Your task to perform on an android device: move a message to another label in the gmail app Image 0: 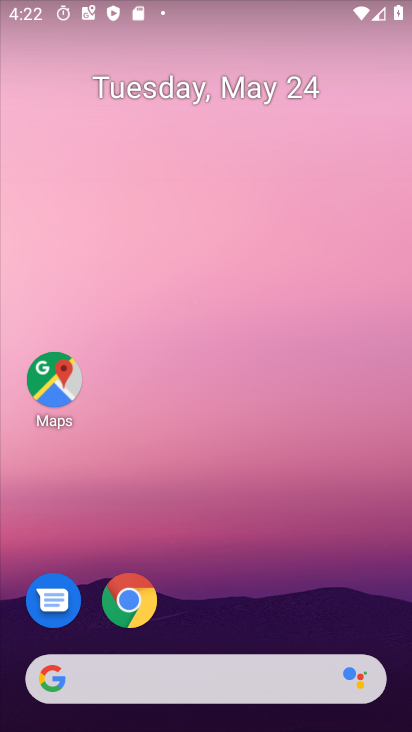
Step 0: drag from (261, 657) to (282, 8)
Your task to perform on an android device: move a message to another label in the gmail app Image 1: 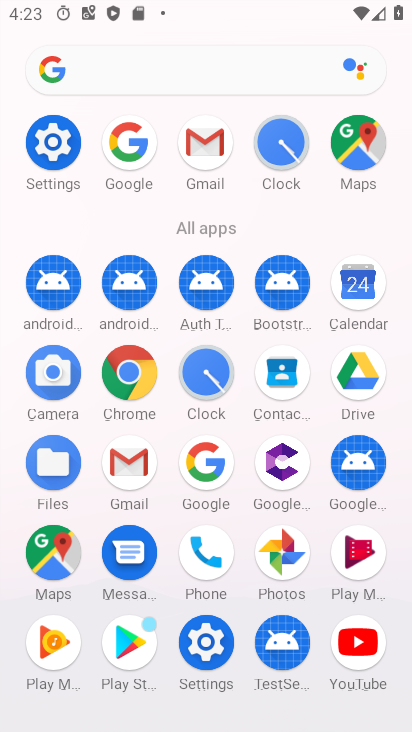
Step 1: click (204, 144)
Your task to perform on an android device: move a message to another label in the gmail app Image 2: 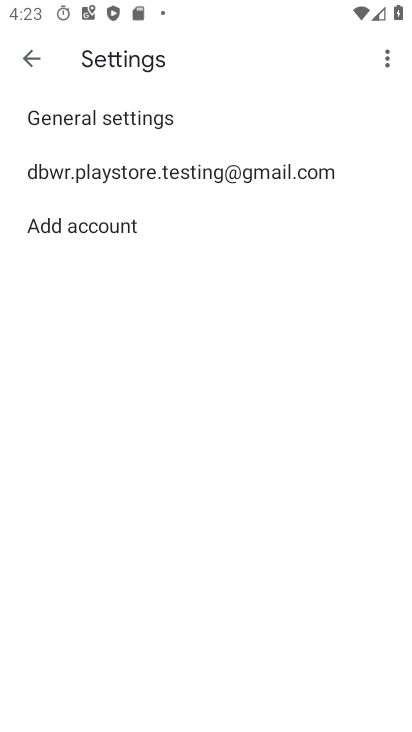
Step 2: click (26, 60)
Your task to perform on an android device: move a message to another label in the gmail app Image 3: 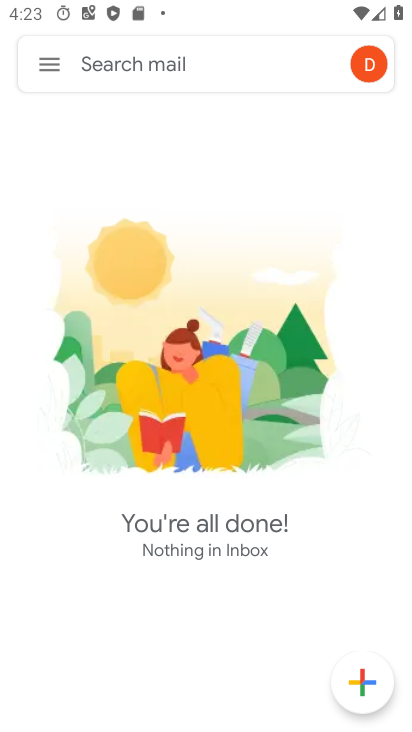
Step 3: click (49, 59)
Your task to perform on an android device: move a message to another label in the gmail app Image 4: 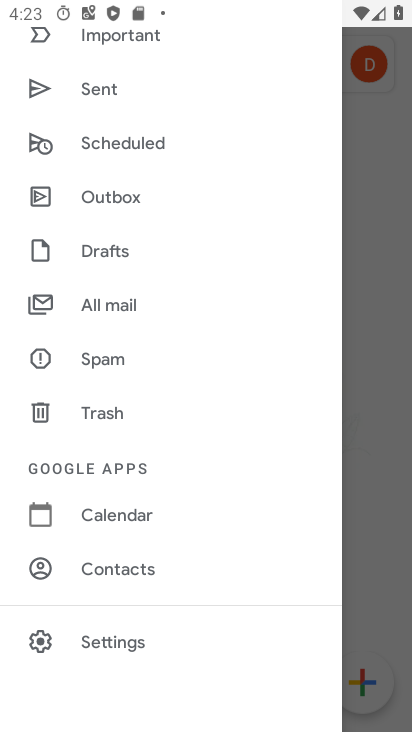
Step 4: click (115, 298)
Your task to perform on an android device: move a message to another label in the gmail app Image 5: 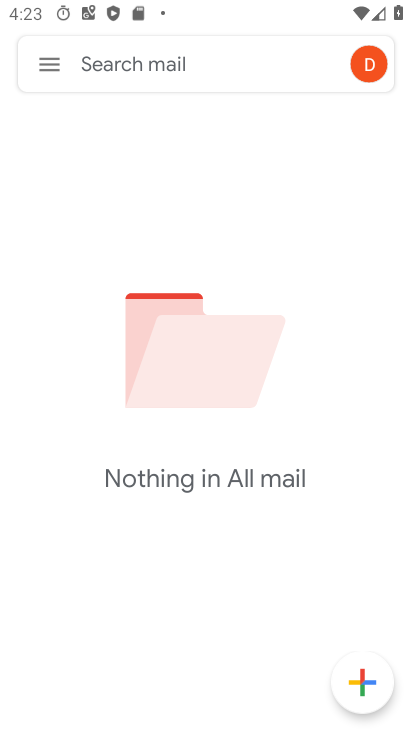
Step 5: task complete